Your task to perform on an android device: turn off location history Image 0: 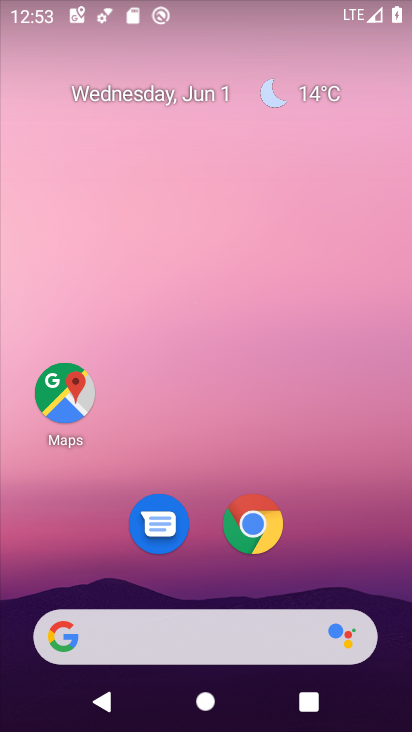
Step 0: drag from (319, 537) to (318, 29)
Your task to perform on an android device: turn off location history Image 1: 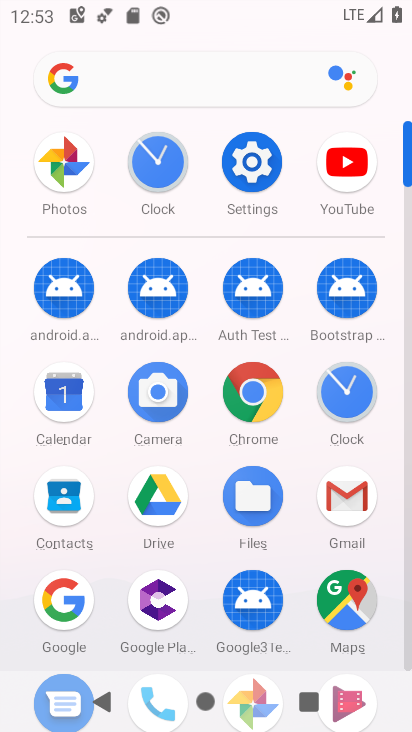
Step 1: click (269, 163)
Your task to perform on an android device: turn off location history Image 2: 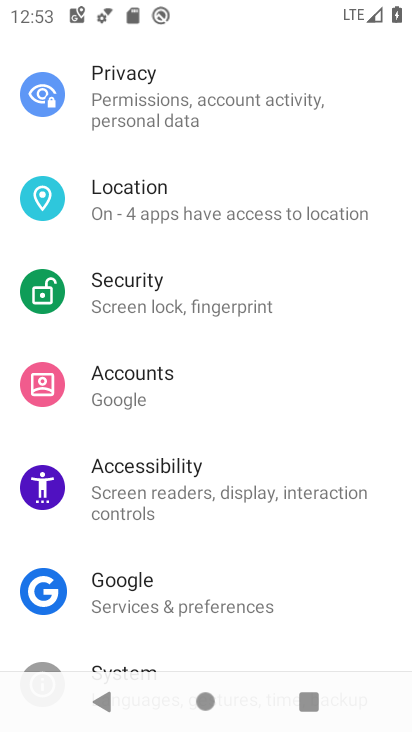
Step 2: click (257, 195)
Your task to perform on an android device: turn off location history Image 3: 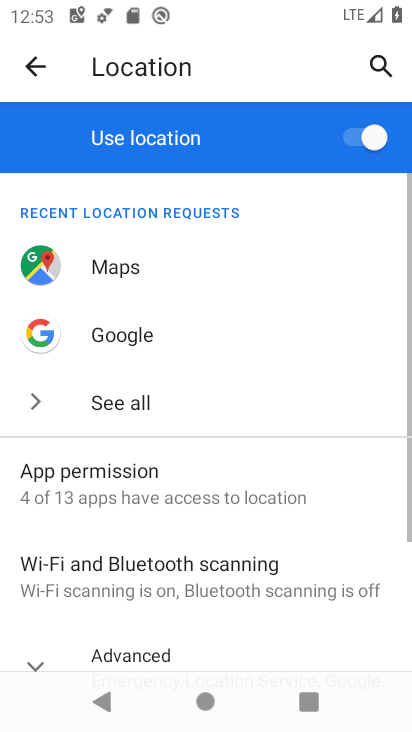
Step 3: drag from (226, 475) to (250, 206)
Your task to perform on an android device: turn off location history Image 4: 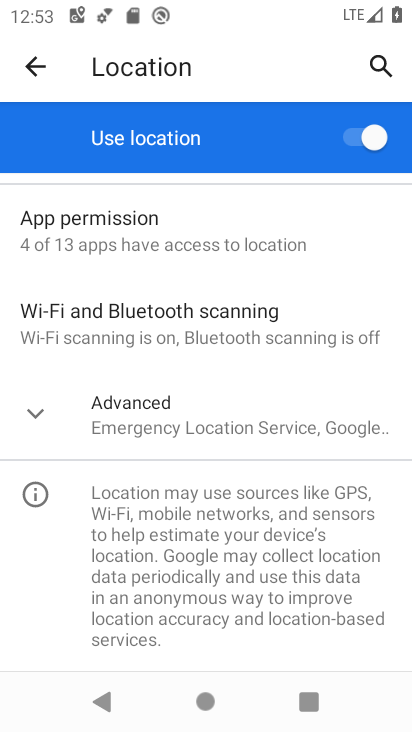
Step 4: click (37, 400)
Your task to perform on an android device: turn off location history Image 5: 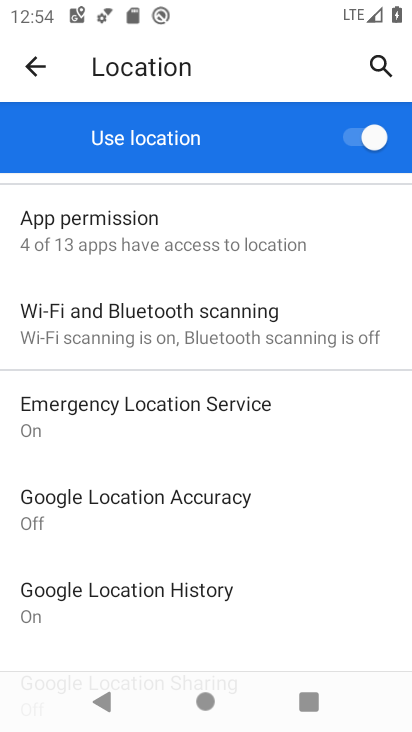
Step 5: click (211, 587)
Your task to perform on an android device: turn off location history Image 6: 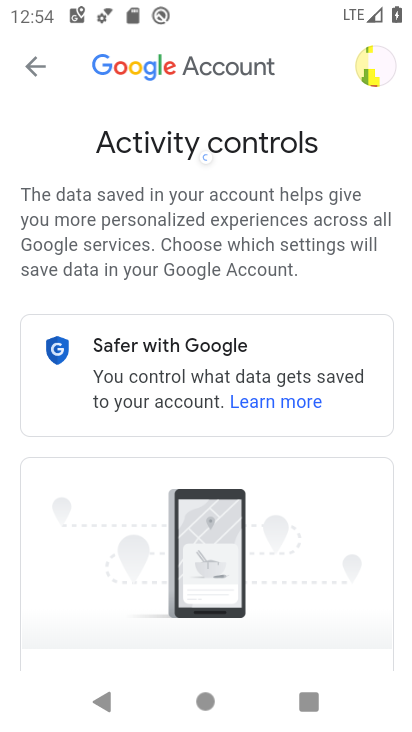
Step 6: task complete